Your task to perform on an android device: Go to ESPN.com Image 0: 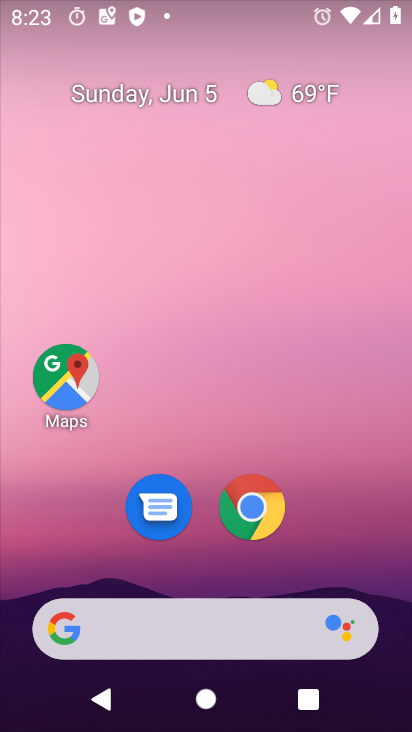
Step 0: drag from (356, 569) to (186, 29)
Your task to perform on an android device: Go to ESPN.com Image 1: 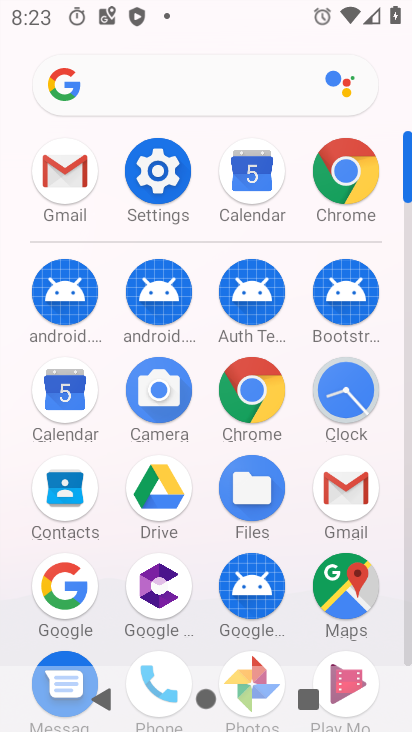
Step 1: click (351, 172)
Your task to perform on an android device: Go to ESPN.com Image 2: 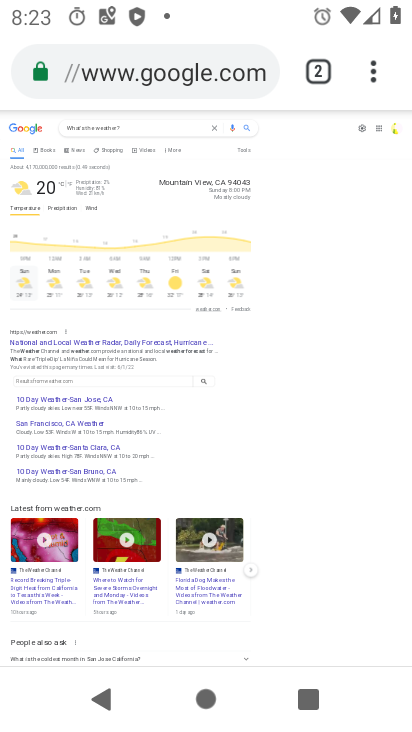
Step 2: click (204, 73)
Your task to perform on an android device: Go to ESPN.com Image 3: 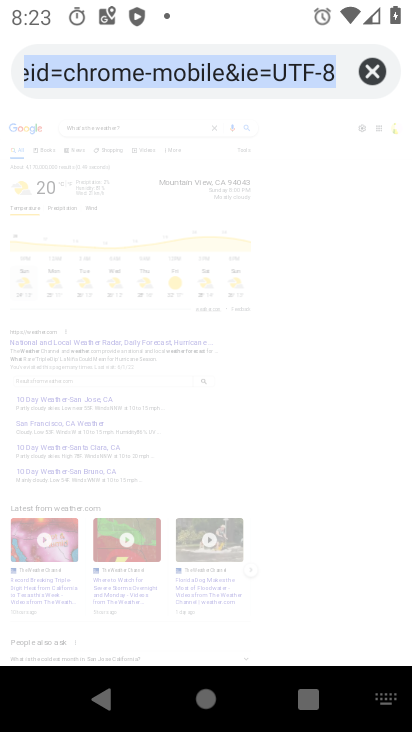
Step 3: click (368, 66)
Your task to perform on an android device: Go to ESPN.com Image 4: 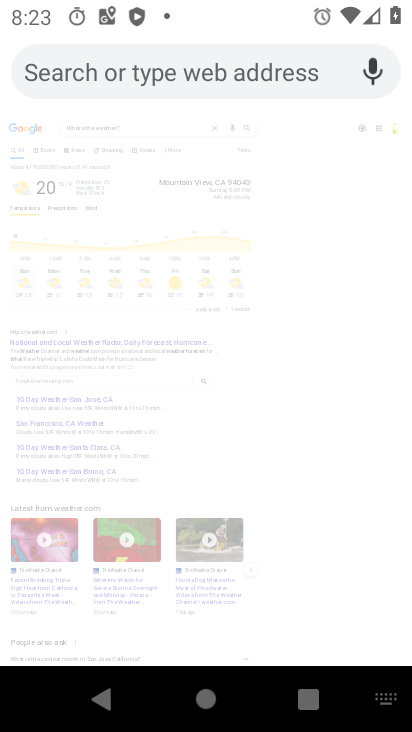
Step 4: type "ESPN.com"
Your task to perform on an android device: Go to ESPN.com Image 5: 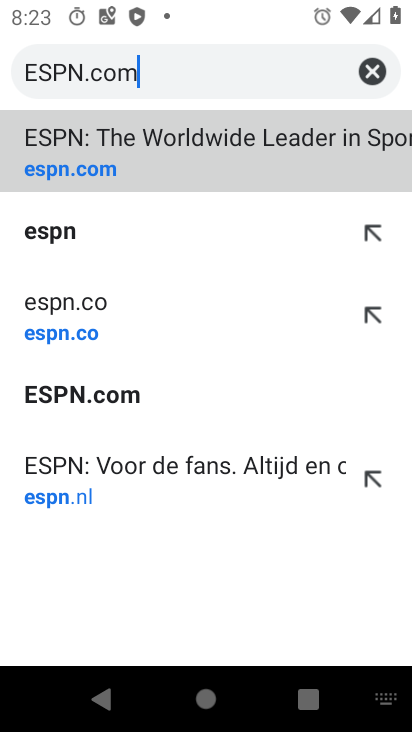
Step 5: type ""
Your task to perform on an android device: Go to ESPN.com Image 6: 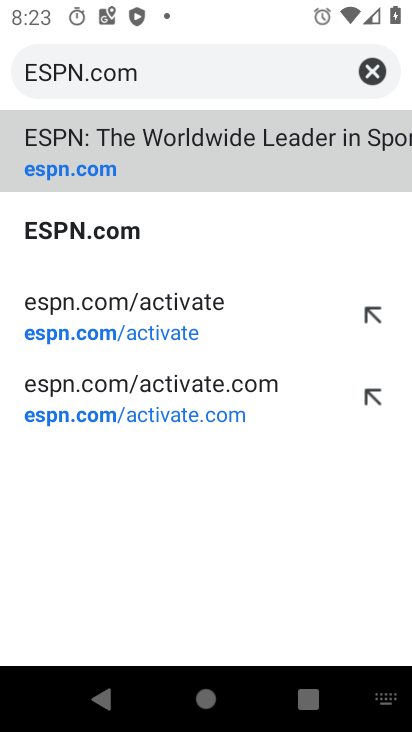
Step 6: click (186, 170)
Your task to perform on an android device: Go to ESPN.com Image 7: 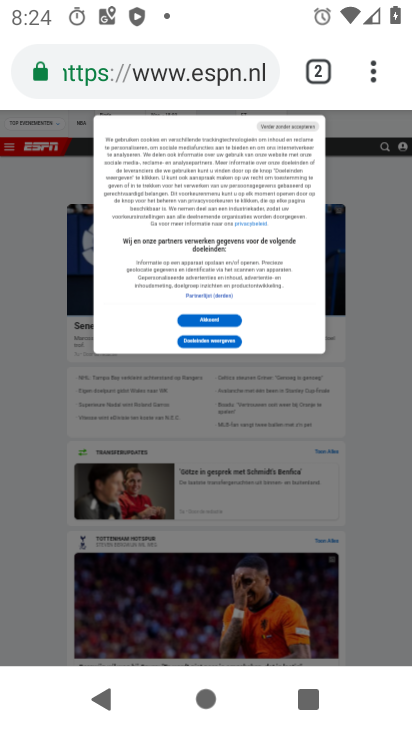
Step 7: click (224, 318)
Your task to perform on an android device: Go to ESPN.com Image 8: 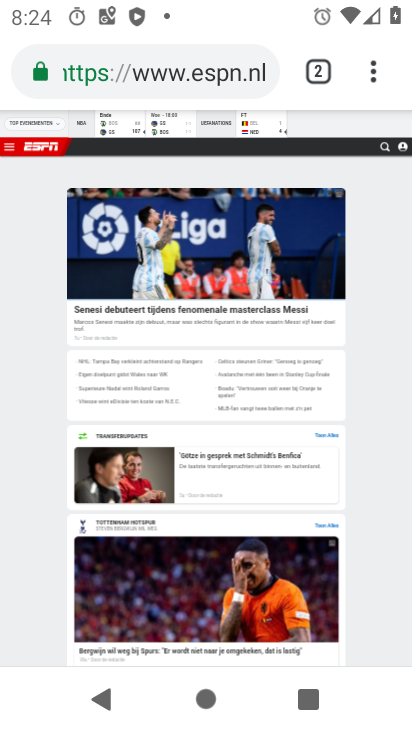
Step 8: task complete